Your task to perform on an android device: Search for seafood restaurants on Google Maps Image 0: 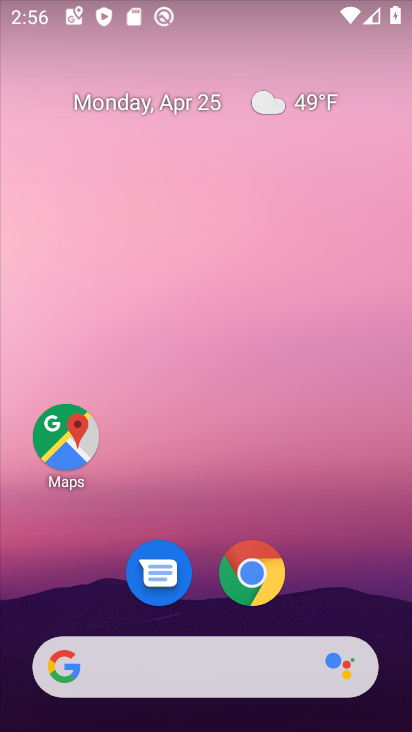
Step 0: click (60, 438)
Your task to perform on an android device: Search for seafood restaurants on Google Maps Image 1: 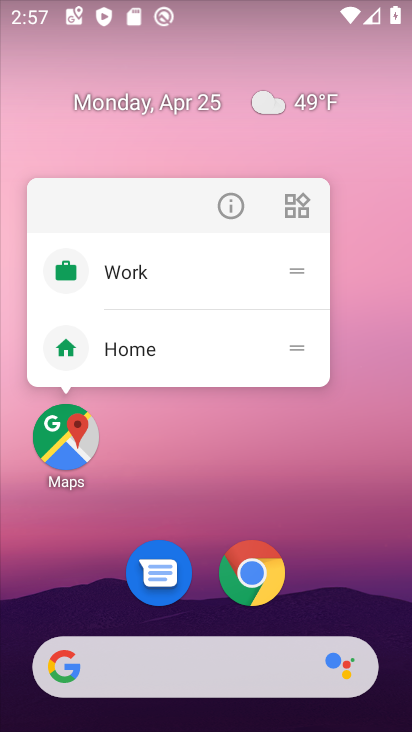
Step 1: click (61, 445)
Your task to perform on an android device: Search for seafood restaurants on Google Maps Image 2: 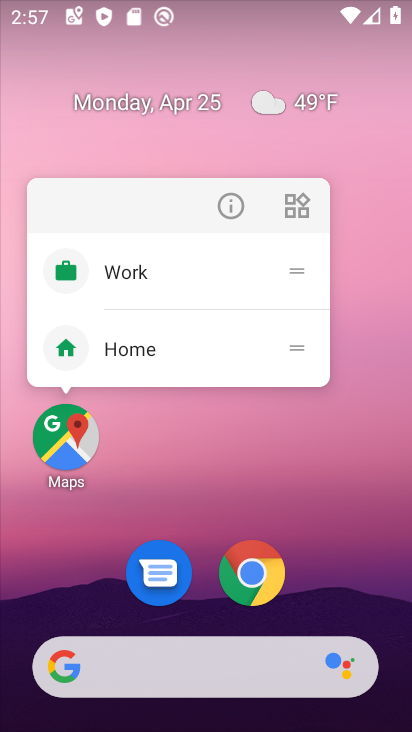
Step 2: click (60, 435)
Your task to perform on an android device: Search for seafood restaurants on Google Maps Image 3: 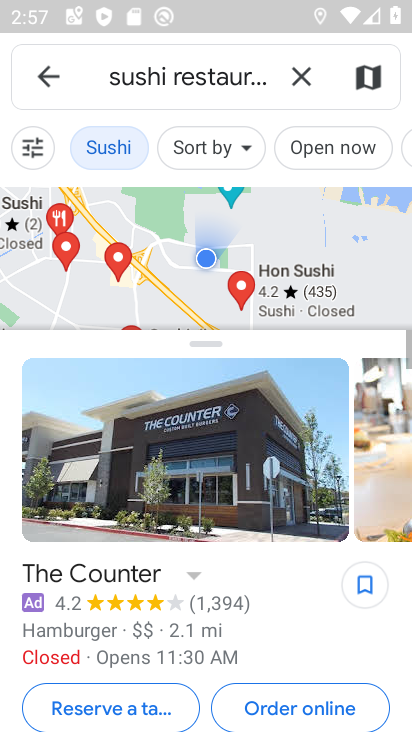
Step 3: click (232, 67)
Your task to perform on an android device: Search for seafood restaurants on Google Maps Image 4: 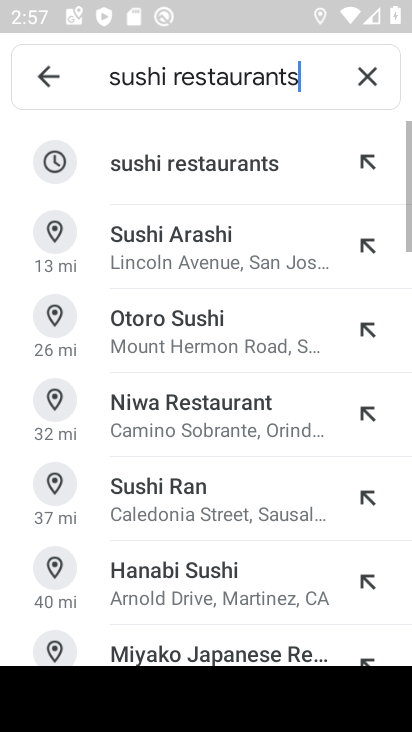
Step 4: click (362, 71)
Your task to perform on an android device: Search for seafood restaurants on Google Maps Image 5: 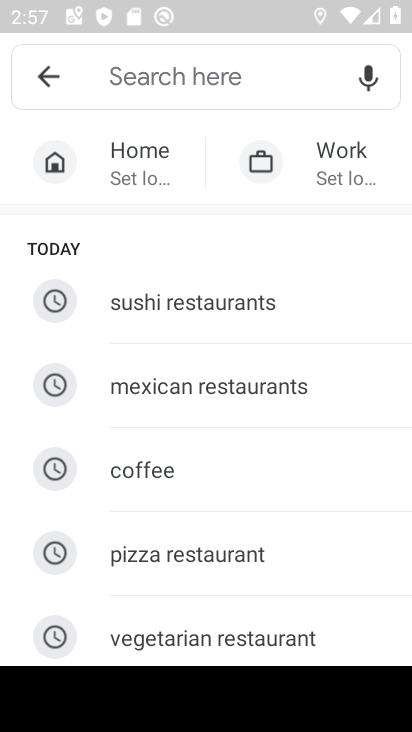
Step 5: click (175, 84)
Your task to perform on an android device: Search for seafood restaurants on Google Maps Image 6: 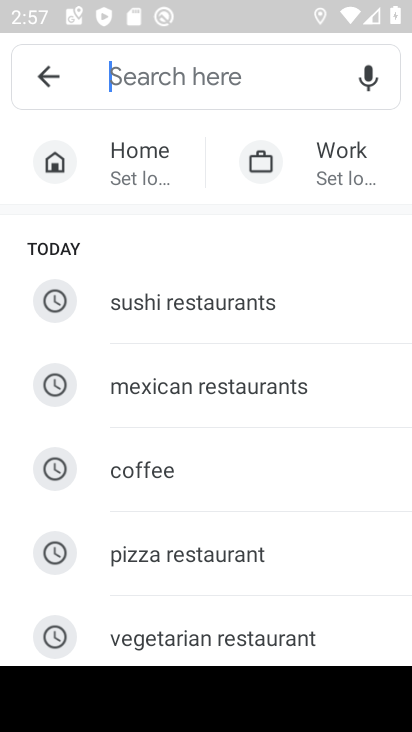
Step 6: type "seafood"
Your task to perform on an android device: Search for seafood restaurants on Google Maps Image 7: 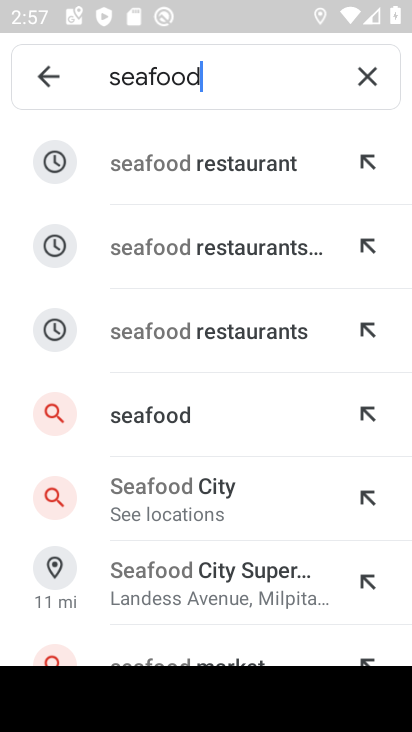
Step 7: click (210, 169)
Your task to perform on an android device: Search for seafood restaurants on Google Maps Image 8: 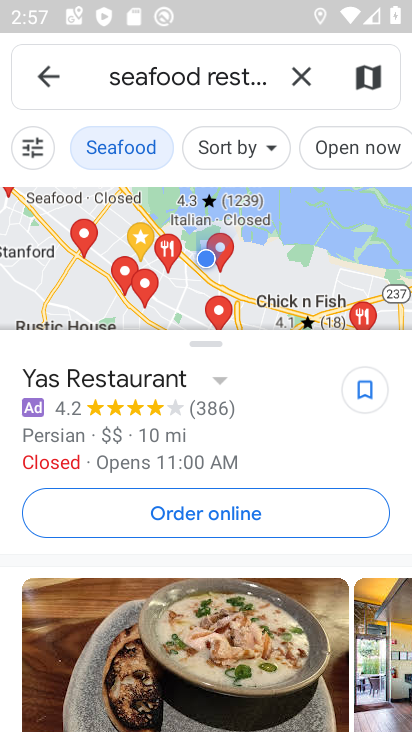
Step 8: task complete